Your task to perform on an android device: Go to Android settings Image 0: 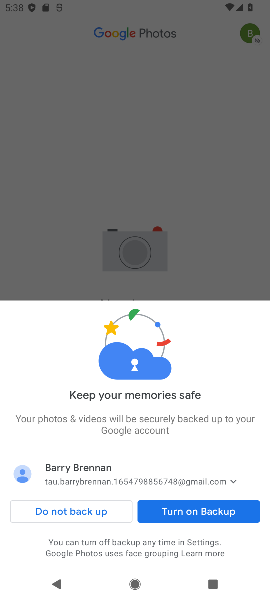
Step 0: press home button
Your task to perform on an android device: Go to Android settings Image 1: 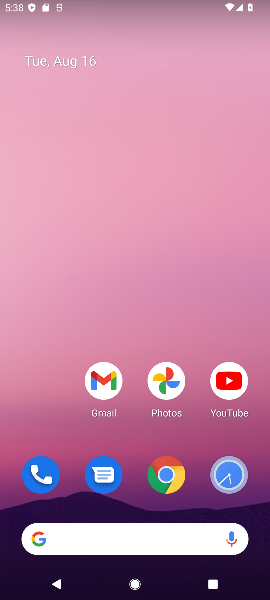
Step 1: drag from (259, 507) to (131, 51)
Your task to perform on an android device: Go to Android settings Image 2: 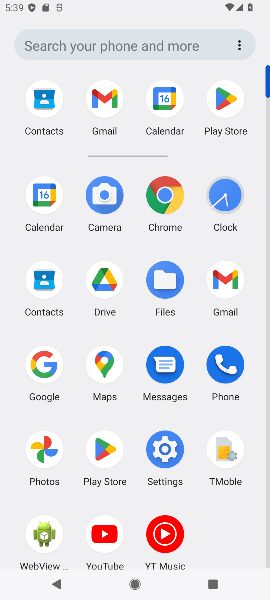
Step 2: click (167, 452)
Your task to perform on an android device: Go to Android settings Image 3: 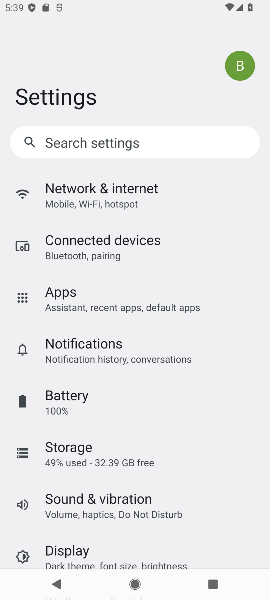
Step 3: task complete